Your task to perform on an android device: turn on improve location accuracy Image 0: 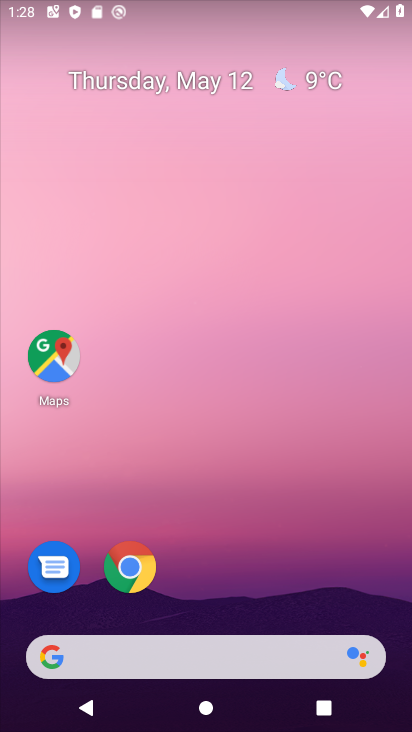
Step 0: drag from (216, 593) to (211, 96)
Your task to perform on an android device: turn on improve location accuracy Image 1: 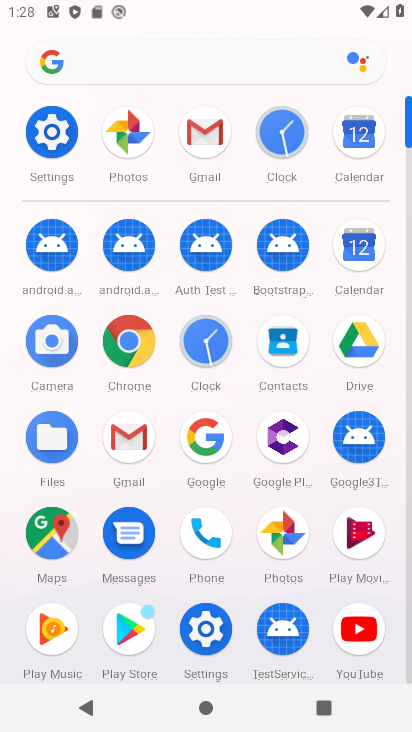
Step 1: click (50, 129)
Your task to perform on an android device: turn on improve location accuracy Image 2: 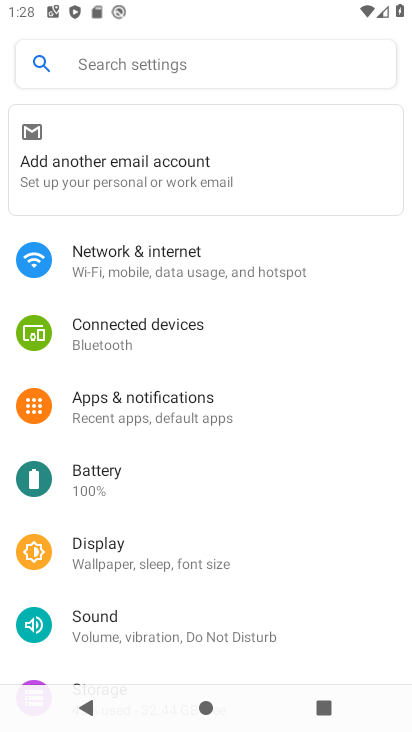
Step 2: drag from (174, 624) to (163, 241)
Your task to perform on an android device: turn on improve location accuracy Image 3: 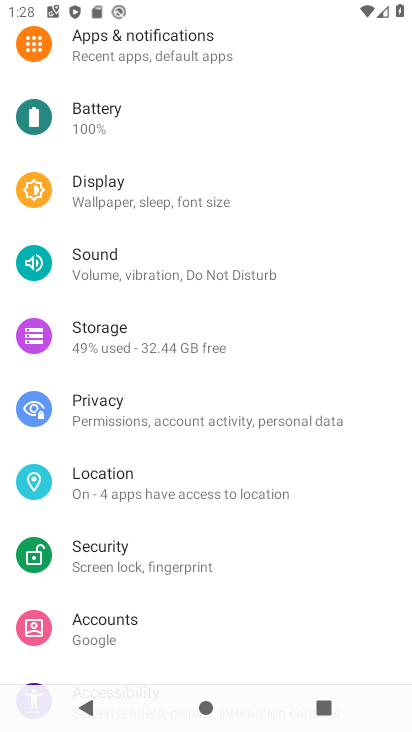
Step 3: click (154, 478)
Your task to perform on an android device: turn on improve location accuracy Image 4: 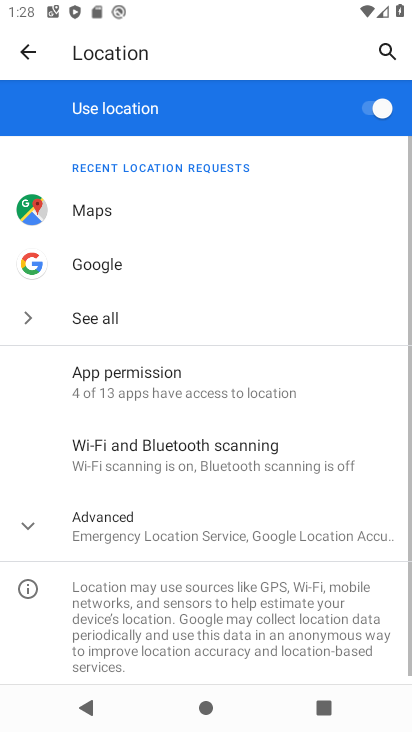
Step 4: click (22, 519)
Your task to perform on an android device: turn on improve location accuracy Image 5: 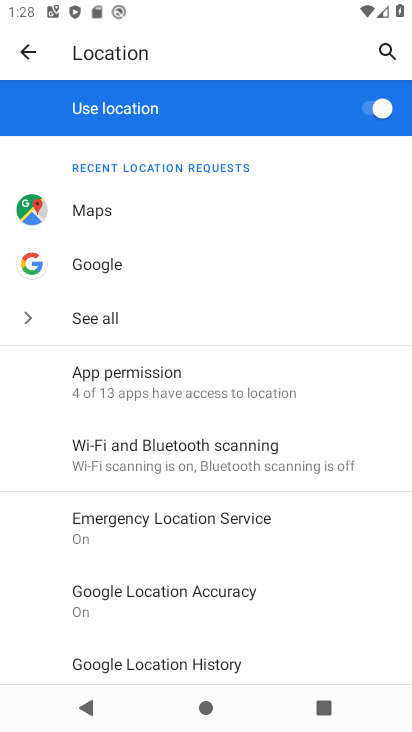
Step 5: click (173, 602)
Your task to perform on an android device: turn on improve location accuracy Image 6: 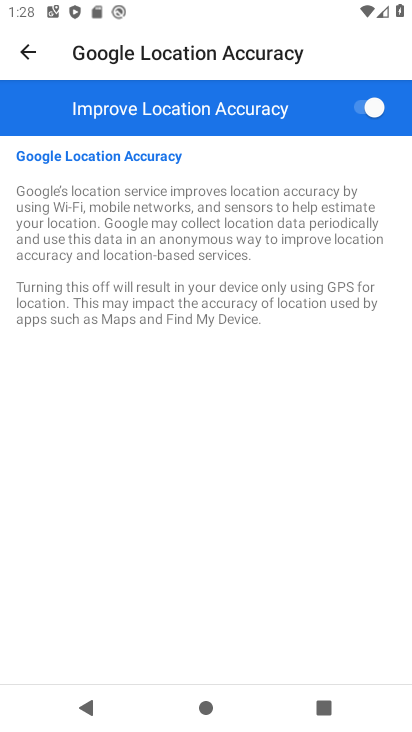
Step 6: task complete